Your task to perform on an android device: open chrome privacy settings Image 0: 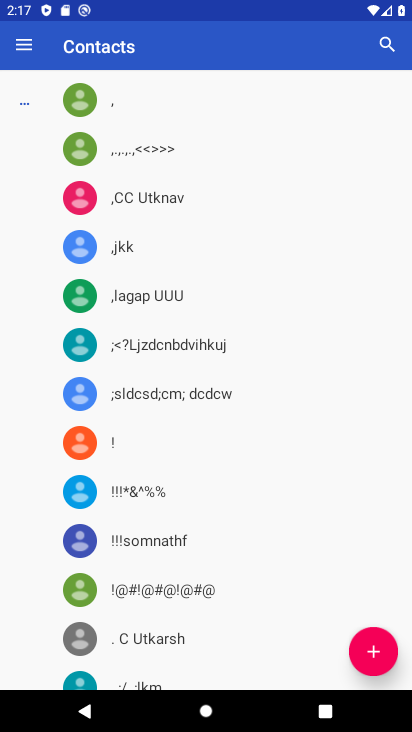
Step 0: press home button
Your task to perform on an android device: open chrome privacy settings Image 1: 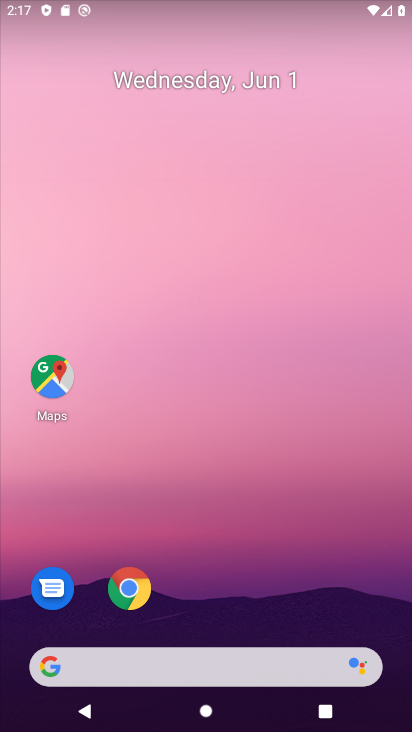
Step 1: click (128, 587)
Your task to perform on an android device: open chrome privacy settings Image 2: 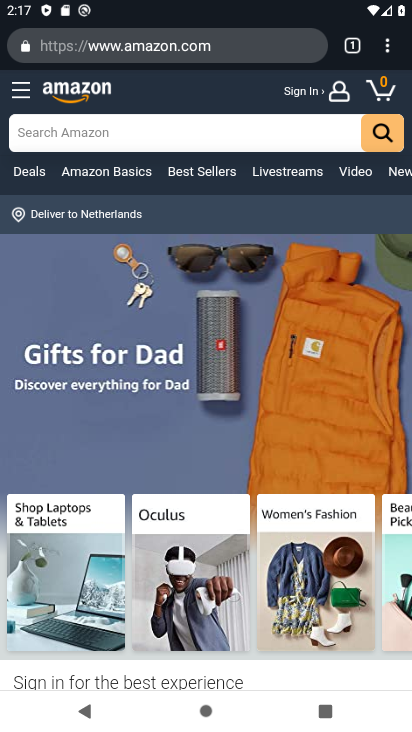
Step 2: click (390, 43)
Your task to perform on an android device: open chrome privacy settings Image 3: 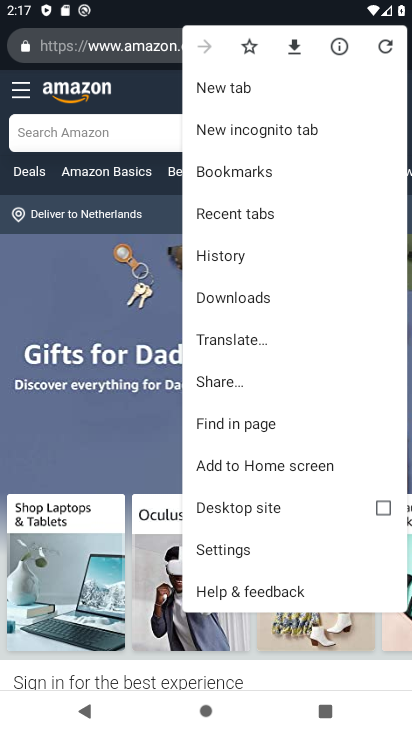
Step 3: click (231, 552)
Your task to perform on an android device: open chrome privacy settings Image 4: 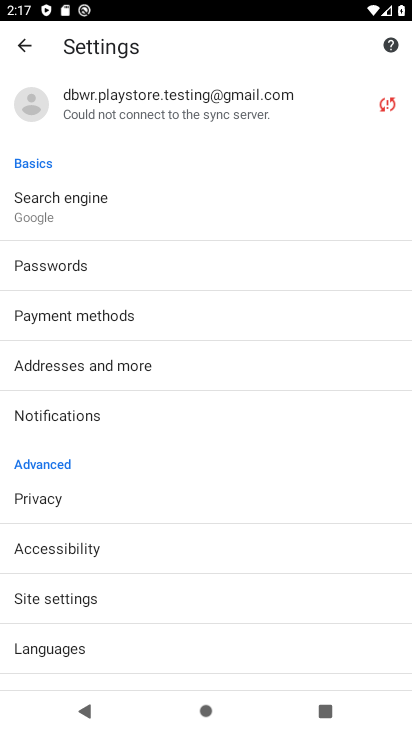
Step 4: click (41, 497)
Your task to perform on an android device: open chrome privacy settings Image 5: 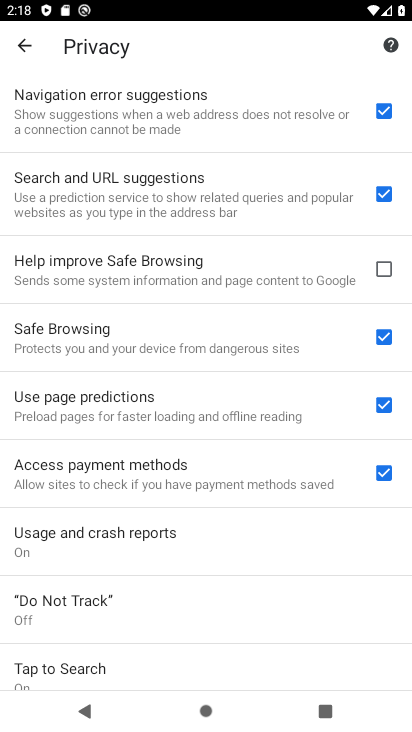
Step 5: task complete